Your task to perform on an android device: Go to accessibility settings Image 0: 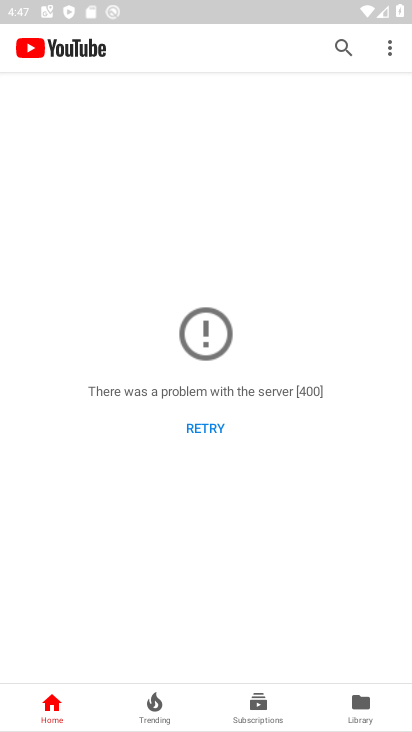
Step 0: press home button
Your task to perform on an android device: Go to accessibility settings Image 1: 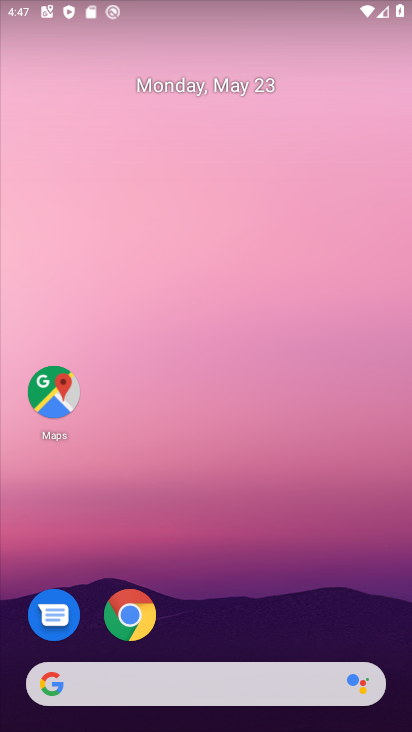
Step 1: drag from (201, 633) to (275, 114)
Your task to perform on an android device: Go to accessibility settings Image 2: 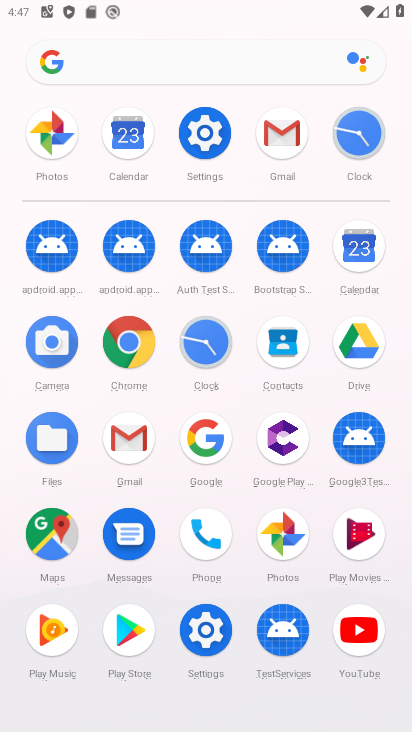
Step 2: click (202, 125)
Your task to perform on an android device: Go to accessibility settings Image 3: 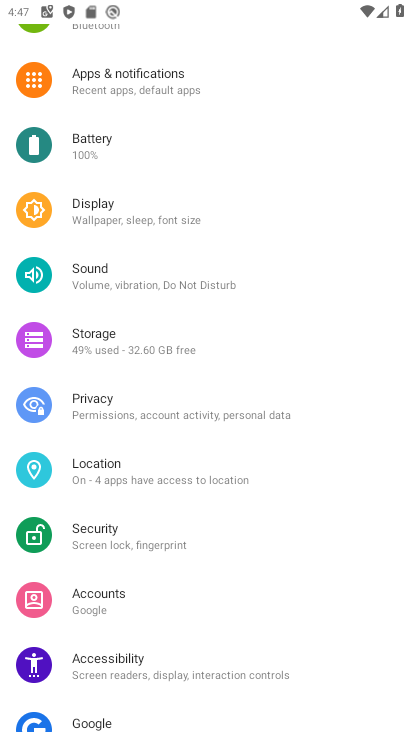
Step 3: click (112, 585)
Your task to perform on an android device: Go to accessibility settings Image 4: 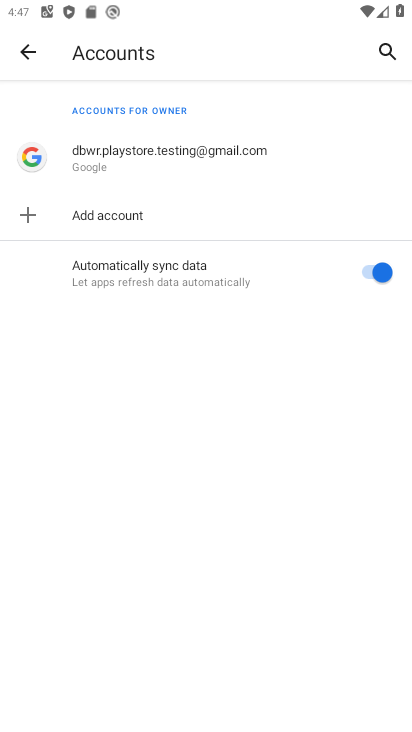
Step 4: click (126, 660)
Your task to perform on an android device: Go to accessibility settings Image 5: 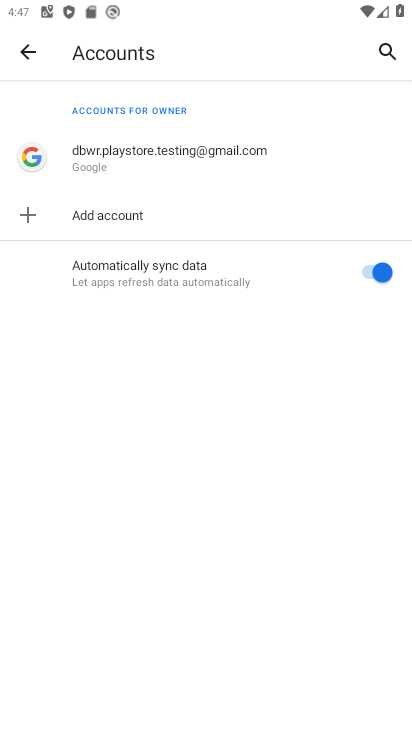
Step 5: click (35, 58)
Your task to perform on an android device: Go to accessibility settings Image 6: 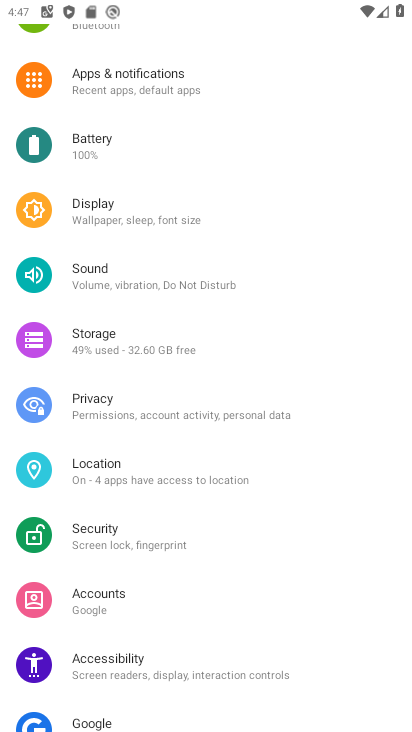
Step 6: click (113, 662)
Your task to perform on an android device: Go to accessibility settings Image 7: 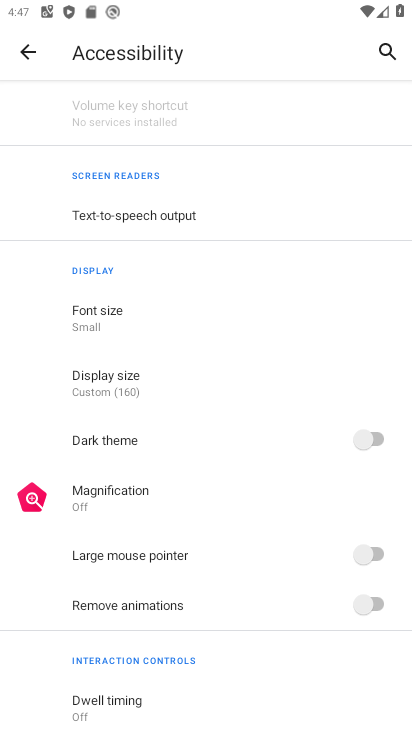
Step 7: task complete